Your task to perform on an android device: allow cookies in the chrome app Image 0: 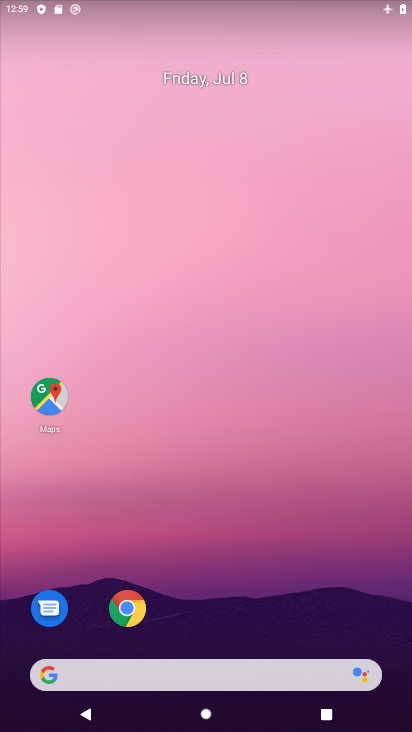
Step 0: click (127, 607)
Your task to perform on an android device: allow cookies in the chrome app Image 1: 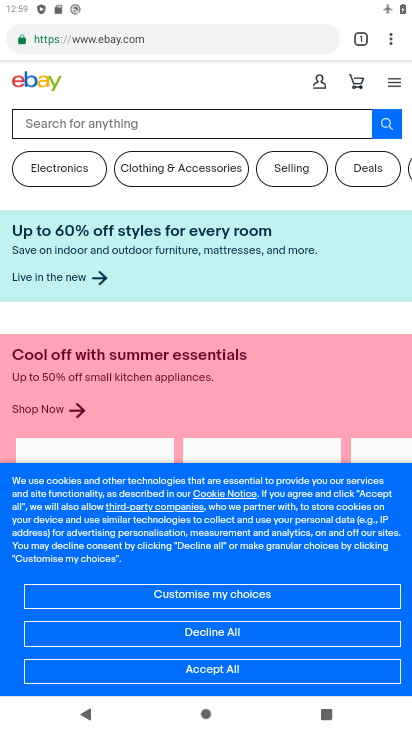
Step 1: click (387, 43)
Your task to perform on an android device: allow cookies in the chrome app Image 2: 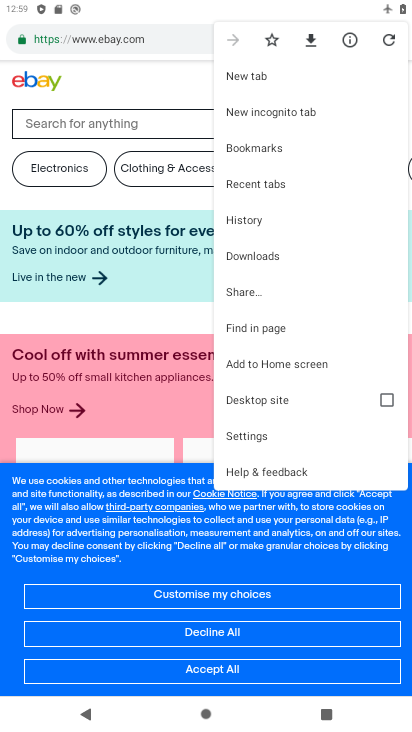
Step 2: click (254, 428)
Your task to perform on an android device: allow cookies in the chrome app Image 3: 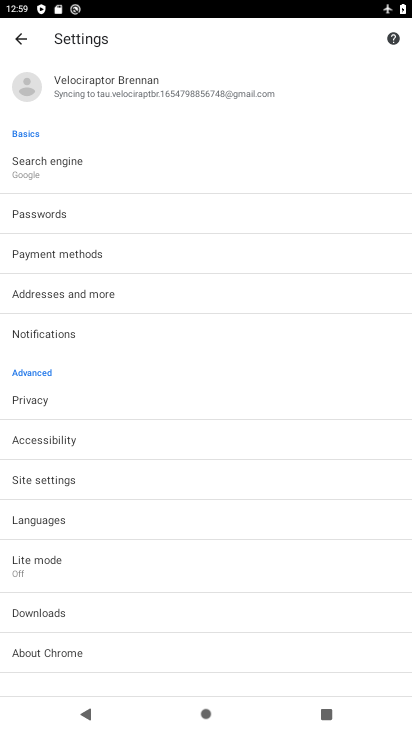
Step 3: click (36, 478)
Your task to perform on an android device: allow cookies in the chrome app Image 4: 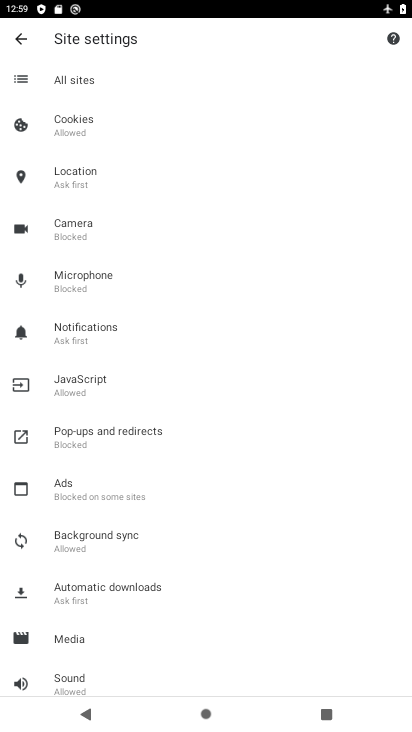
Step 4: click (74, 119)
Your task to perform on an android device: allow cookies in the chrome app Image 5: 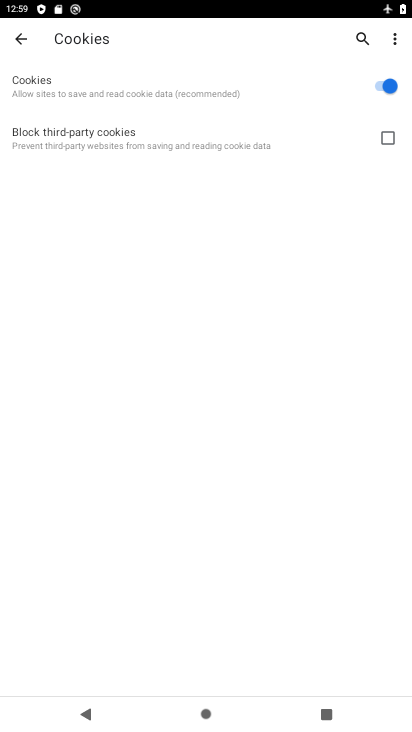
Step 5: task complete